Your task to perform on an android device: open a bookmark in the chrome app Image 0: 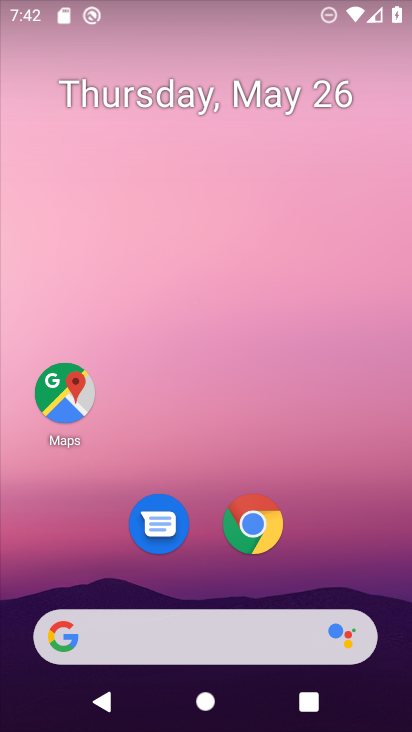
Step 0: click (254, 522)
Your task to perform on an android device: open a bookmark in the chrome app Image 1: 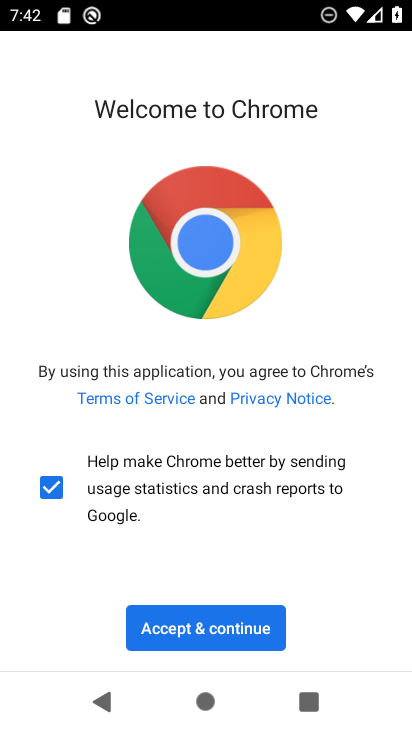
Step 1: click (254, 616)
Your task to perform on an android device: open a bookmark in the chrome app Image 2: 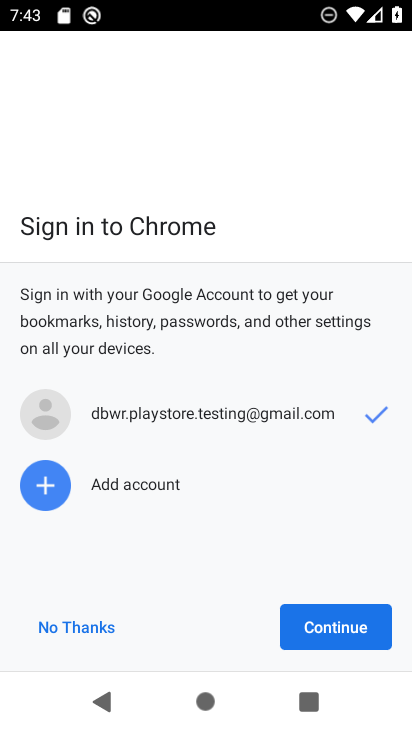
Step 2: click (304, 618)
Your task to perform on an android device: open a bookmark in the chrome app Image 3: 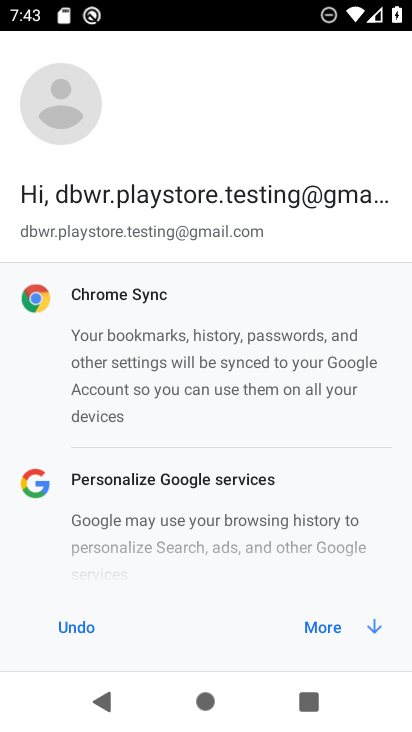
Step 3: click (323, 624)
Your task to perform on an android device: open a bookmark in the chrome app Image 4: 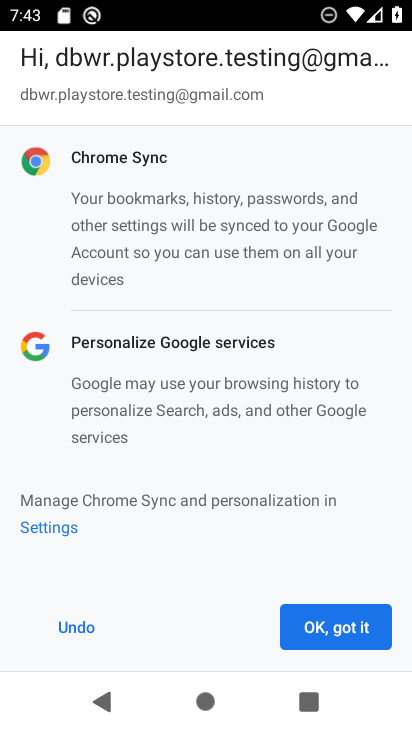
Step 4: click (323, 624)
Your task to perform on an android device: open a bookmark in the chrome app Image 5: 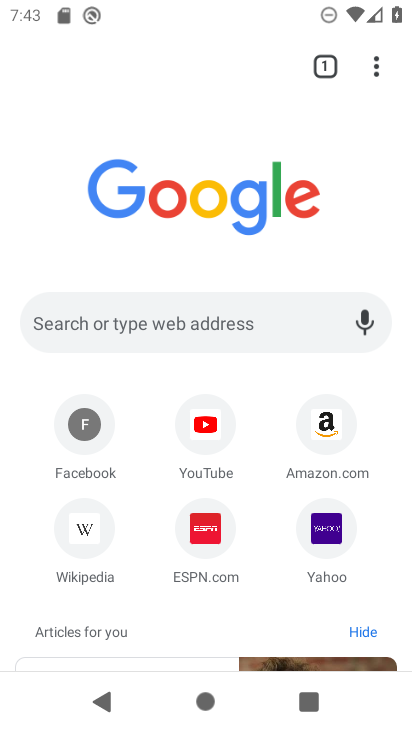
Step 5: drag from (228, 240) to (228, 35)
Your task to perform on an android device: open a bookmark in the chrome app Image 6: 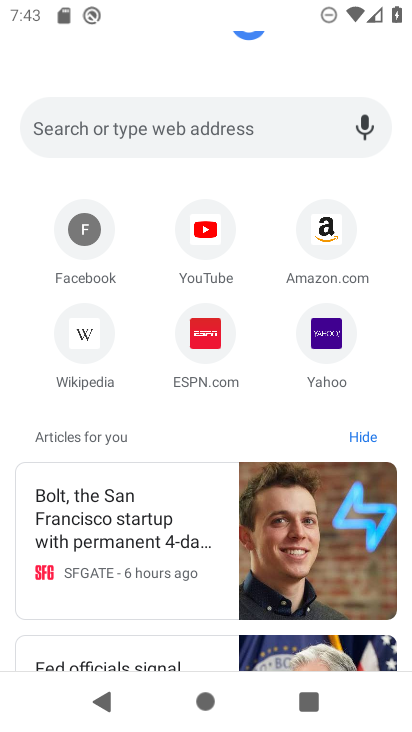
Step 6: drag from (271, 222) to (281, 527)
Your task to perform on an android device: open a bookmark in the chrome app Image 7: 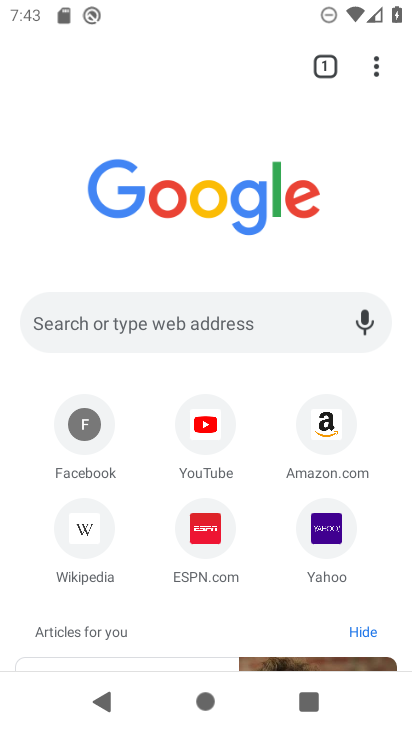
Step 7: click (376, 64)
Your task to perform on an android device: open a bookmark in the chrome app Image 8: 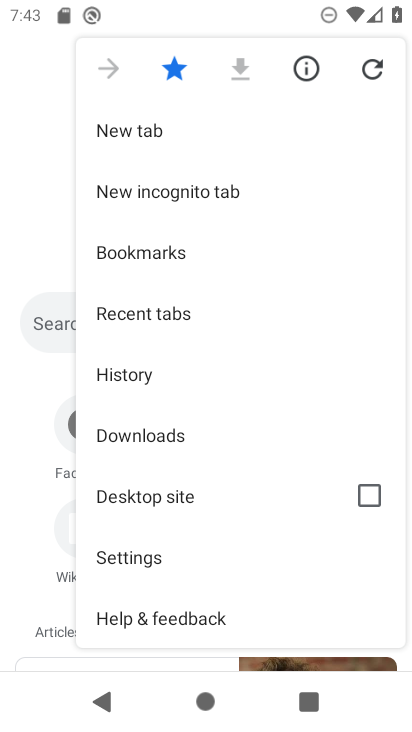
Step 8: click (200, 247)
Your task to perform on an android device: open a bookmark in the chrome app Image 9: 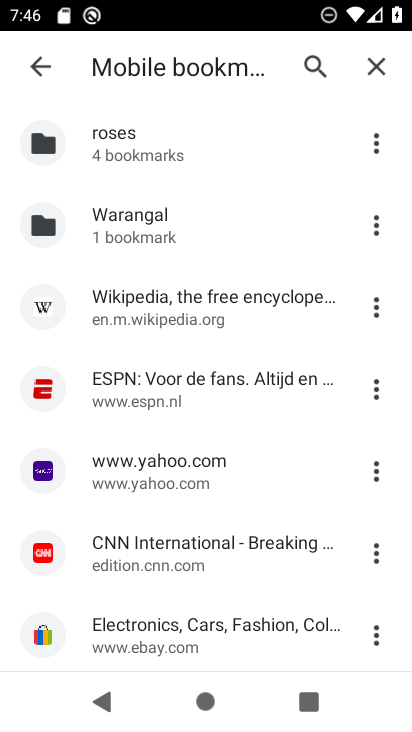
Step 9: task complete